Your task to perform on an android device: turn off notifications settings in the gmail app Image 0: 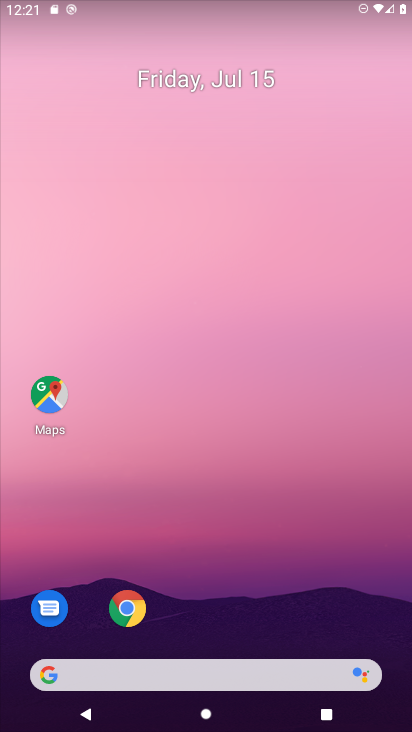
Step 0: click (406, 599)
Your task to perform on an android device: turn off notifications settings in the gmail app Image 1: 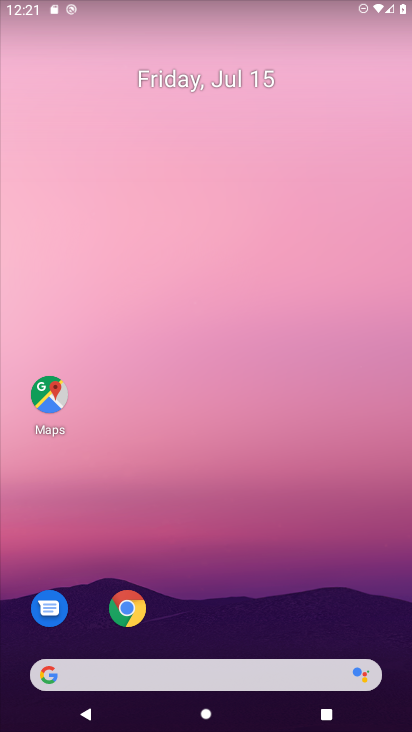
Step 1: drag from (317, 681) to (400, 5)
Your task to perform on an android device: turn off notifications settings in the gmail app Image 2: 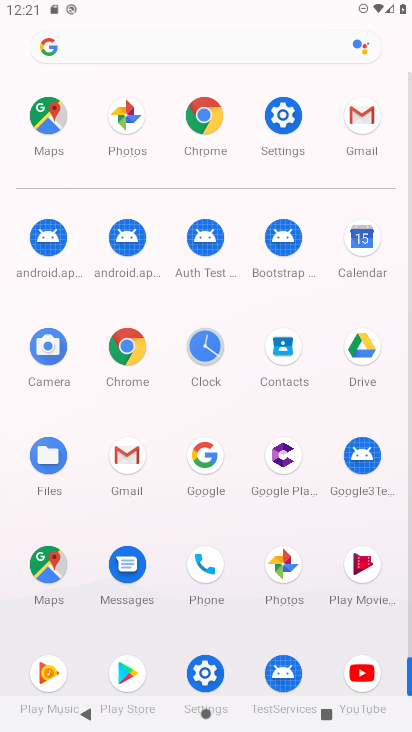
Step 2: click (132, 454)
Your task to perform on an android device: turn off notifications settings in the gmail app Image 3: 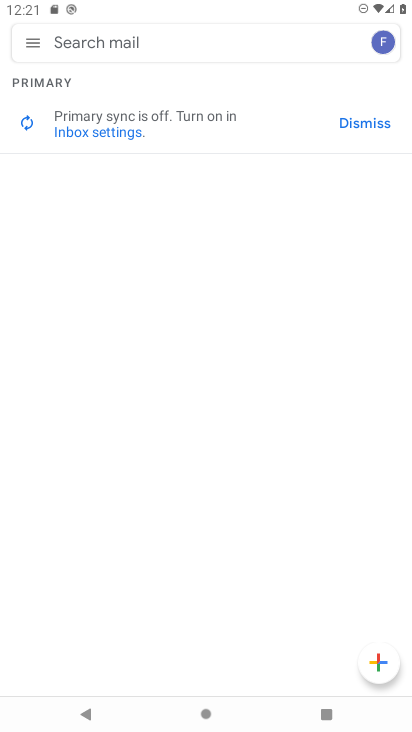
Step 3: click (38, 49)
Your task to perform on an android device: turn off notifications settings in the gmail app Image 4: 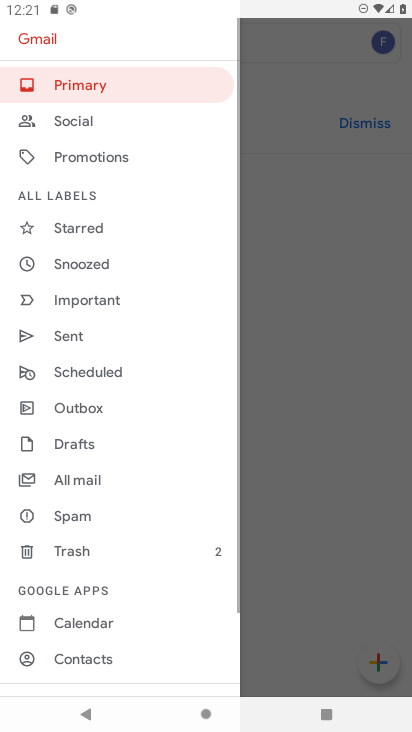
Step 4: drag from (91, 641) to (71, 197)
Your task to perform on an android device: turn off notifications settings in the gmail app Image 5: 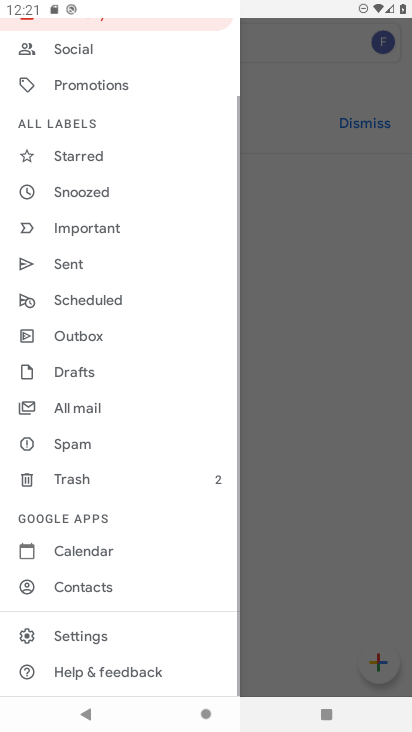
Step 5: click (118, 630)
Your task to perform on an android device: turn off notifications settings in the gmail app Image 6: 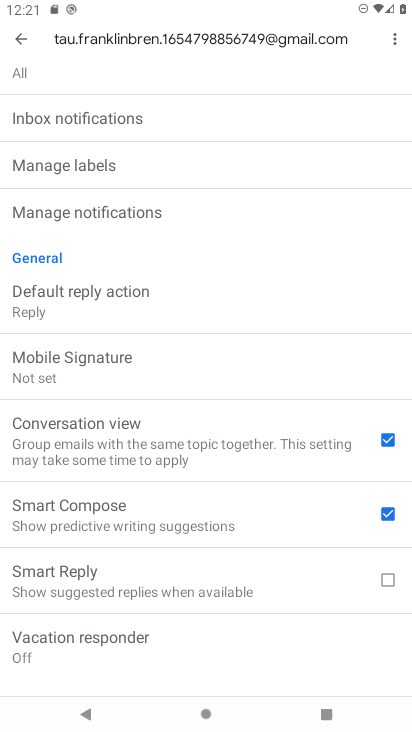
Step 6: click (107, 224)
Your task to perform on an android device: turn off notifications settings in the gmail app Image 7: 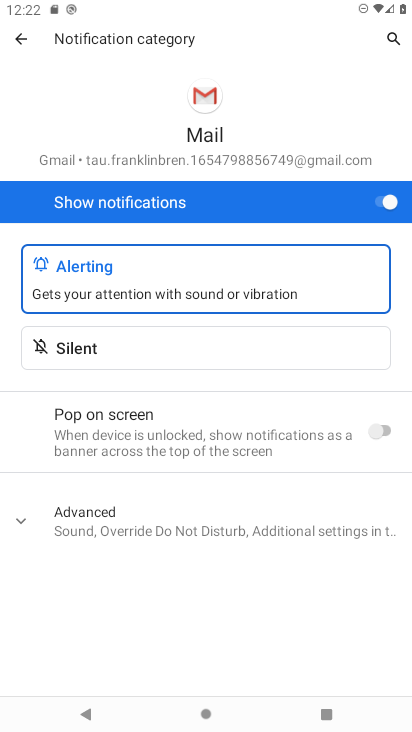
Step 7: click (390, 200)
Your task to perform on an android device: turn off notifications settings in the gmail app Image 8: 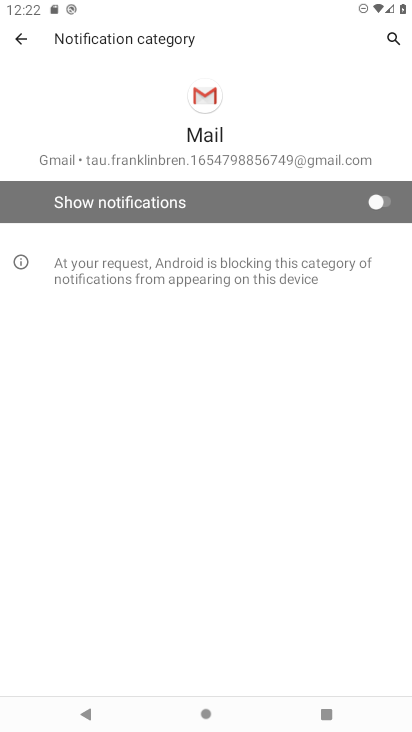
Step 8: task complete